Your task to perform on an android device: toggle notification dots Image 0: 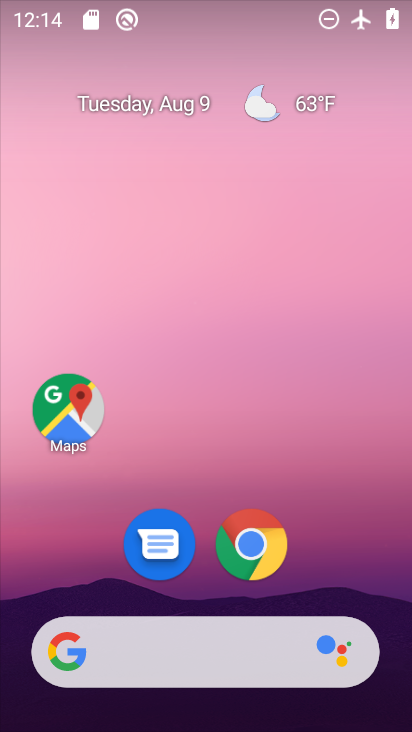
Step 0: drag from (144, 659) to (249, 28)
Your task to perform on an android device: toggle notification dots Image 1: 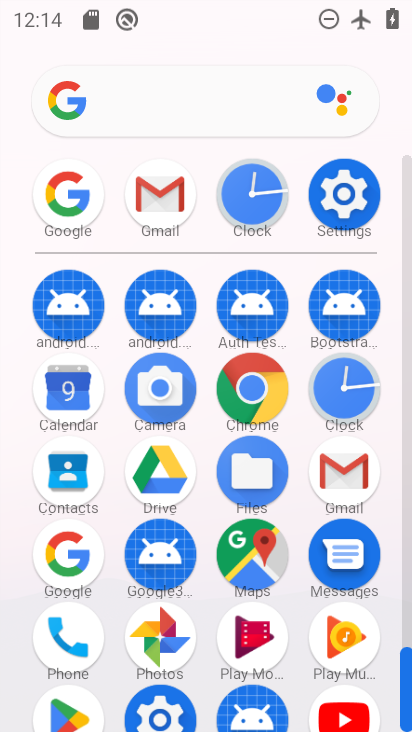
Step 1: click (344, 195)
Your task to perform on an android device: toggle notification dots Image 2: 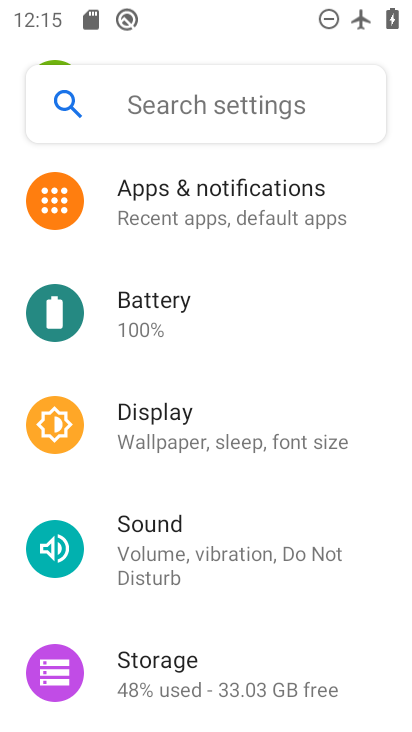
Step 2: click (240, 221)
Your task to perform on an android device: toggle notification dots Image 3: 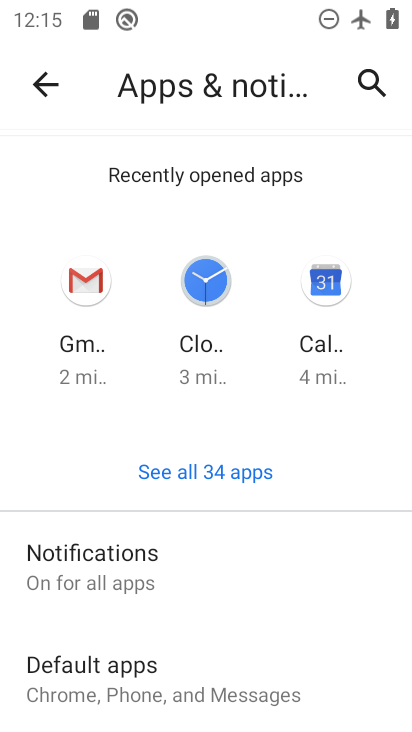
Step 3: click (128, 562)
Your task to perform on an android device: toggle notification dots Image 4: 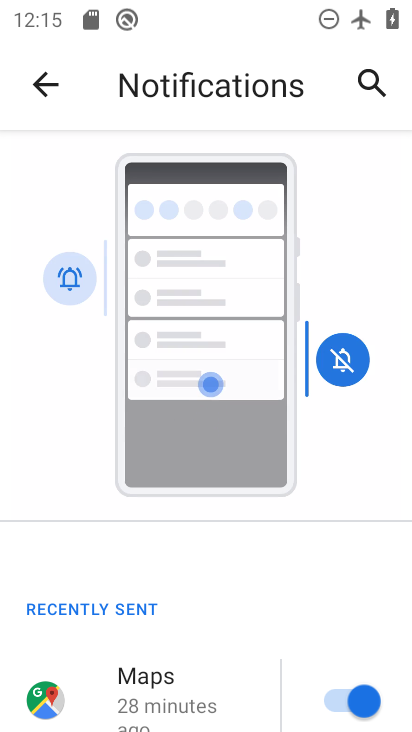
Step 4: drag from (221, 650) to (269, 194)
Your task to perform on an android device: toggle notification dots Image 5: 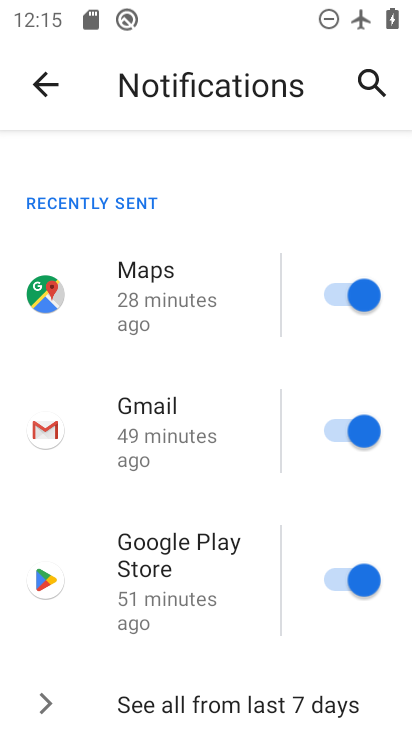
Step 5: drag from (182, 640) to (210, 285)
Your task to perform on an android device: toggle notification dots Image 6: 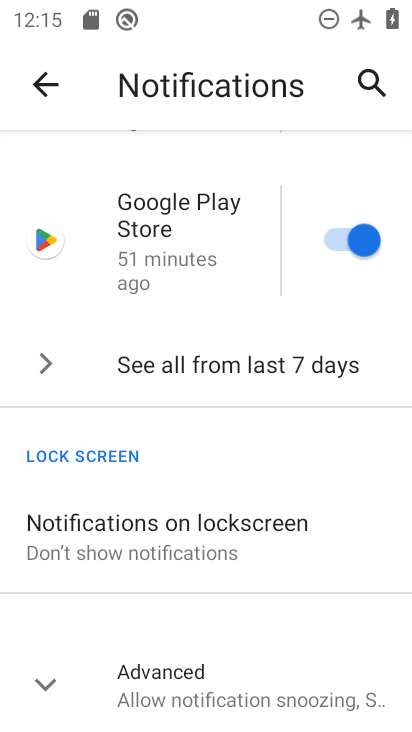
Step 6: click (183, 693)
Your task to perform on an android device: toggle notification dots Image 7: 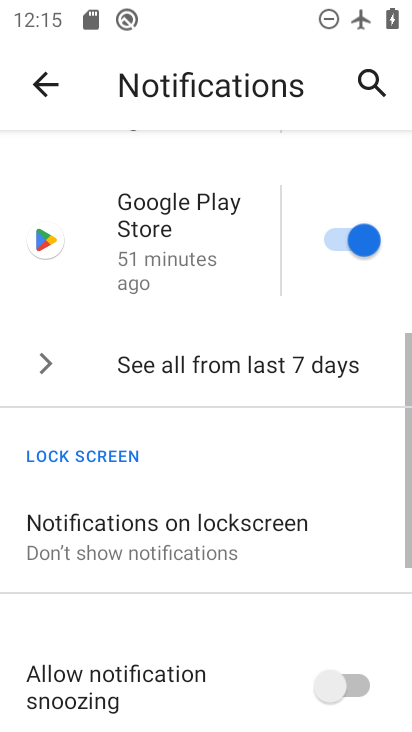
Step 7: drag from (183, 693) to (284, 471)
Your task to perform on an android device: toggle notification dots Image 8: 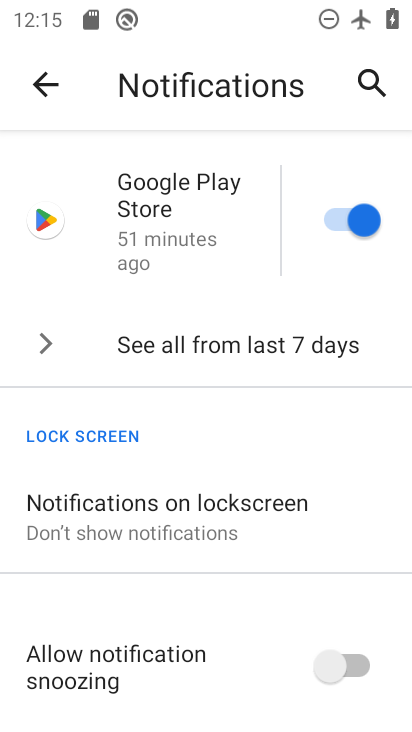
Step 8: drag from (165, 685) to (277, 442)
Your task to perform on an android device: toggle notification dots Image 9: 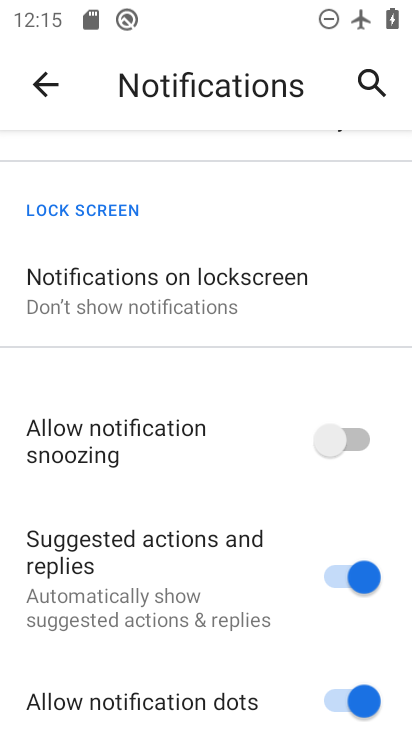
Step 9: click (348, 707)
Your task to perform on an android device: toggle notification dots Image 10: 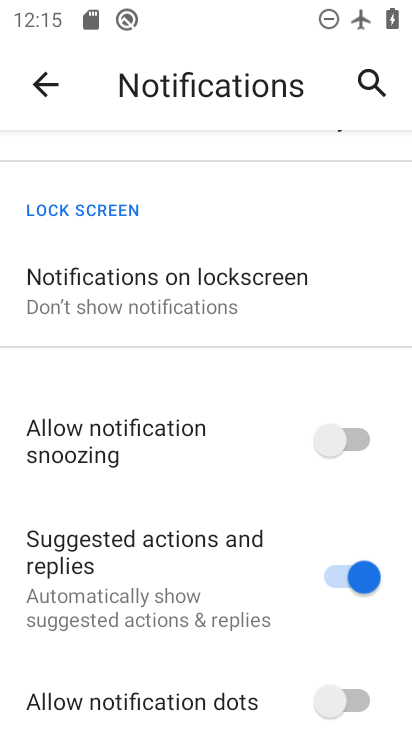
Step 10: task complete